Your task to perform on an android device: clear history in the chrome app Image 0: 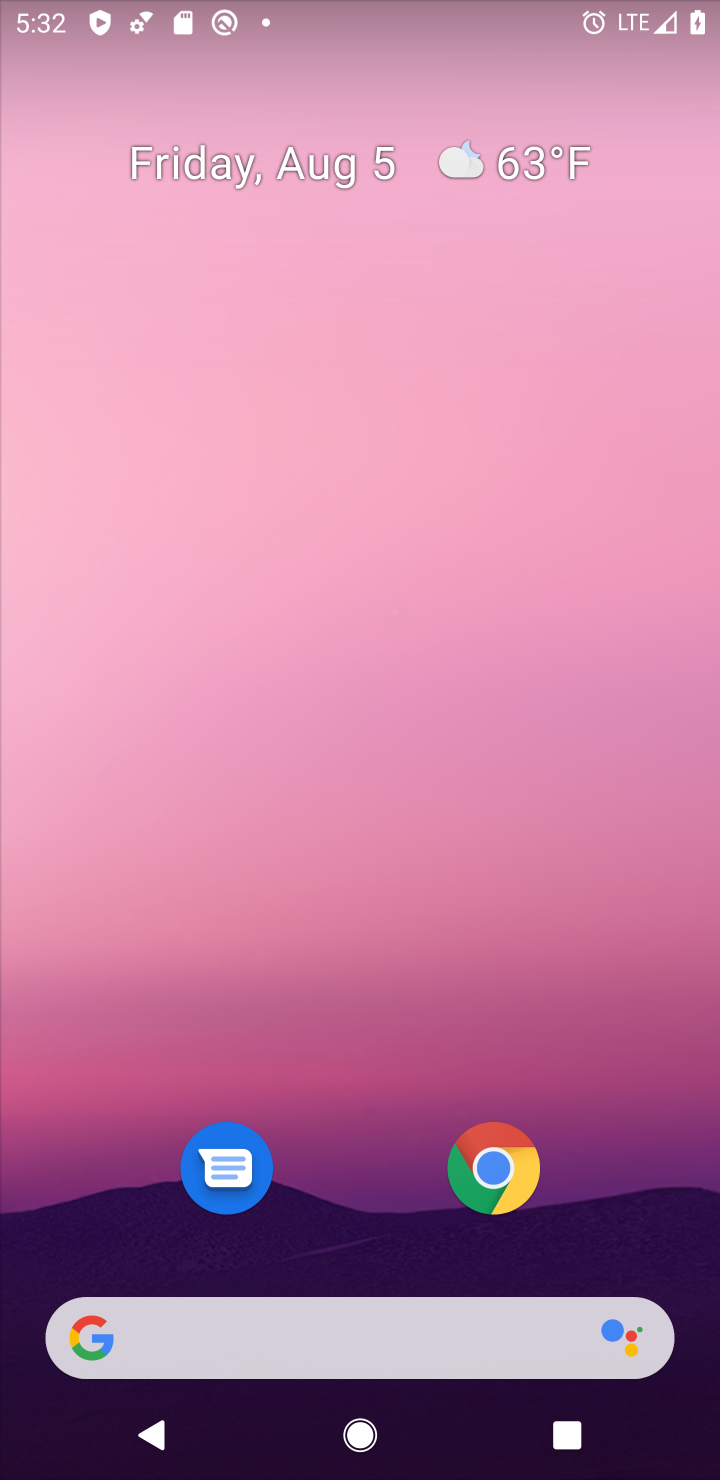
Step 0: drag from (358, 809) to (399, 165)
Your task to perform on an android device: clear history in the chrome app Image 1: 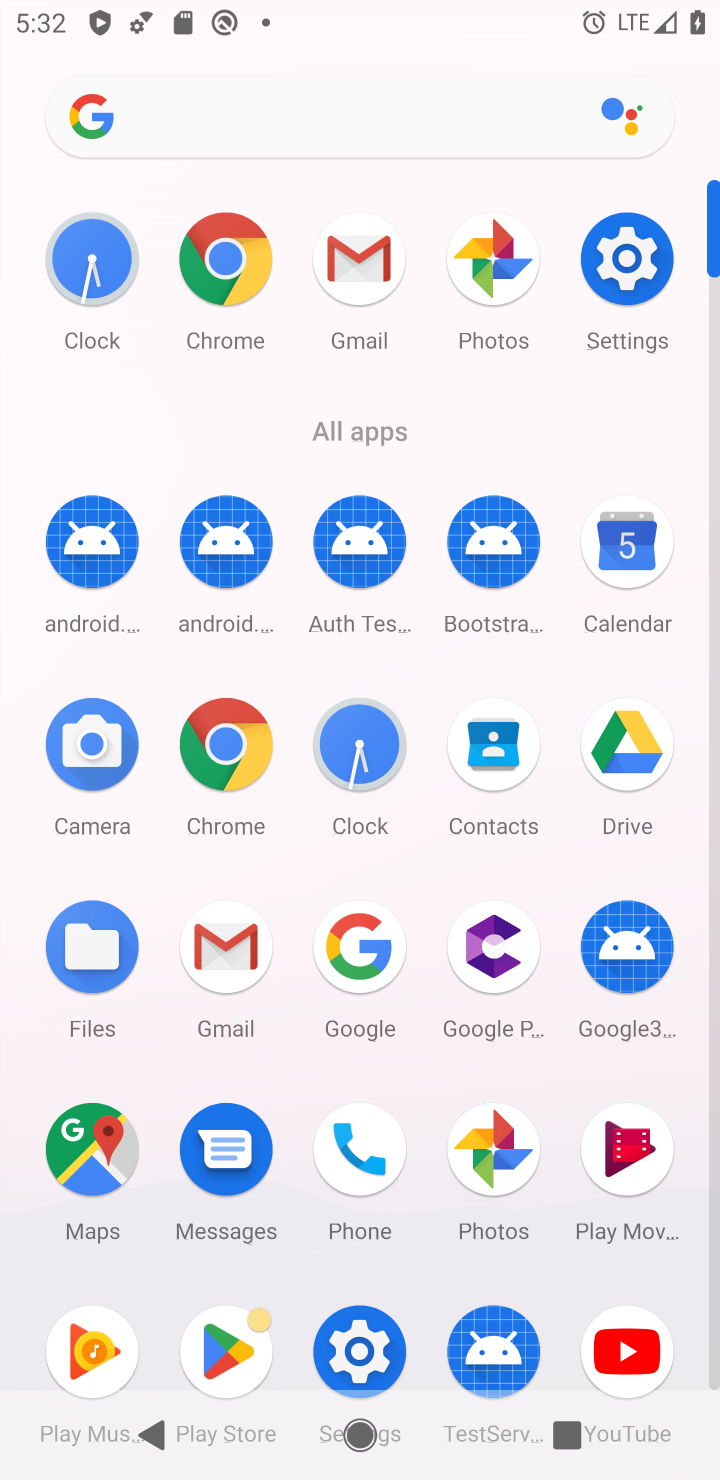
Step 1: click (238, 266)
Your task to perform on an android device: clear history in the chrome app Image 2: 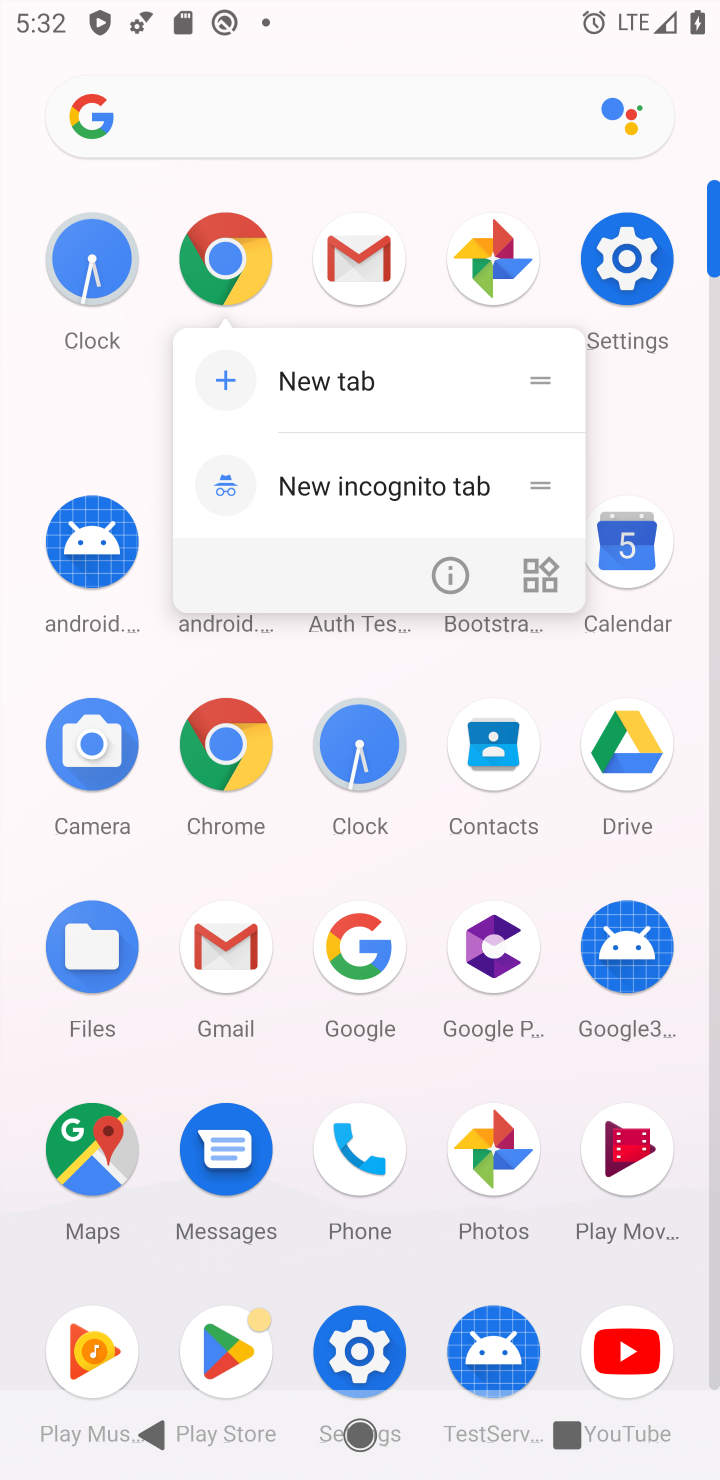
Step 2: click (238, 266)
Your task to perform on an android device: clear history in the chrome app Image 3: 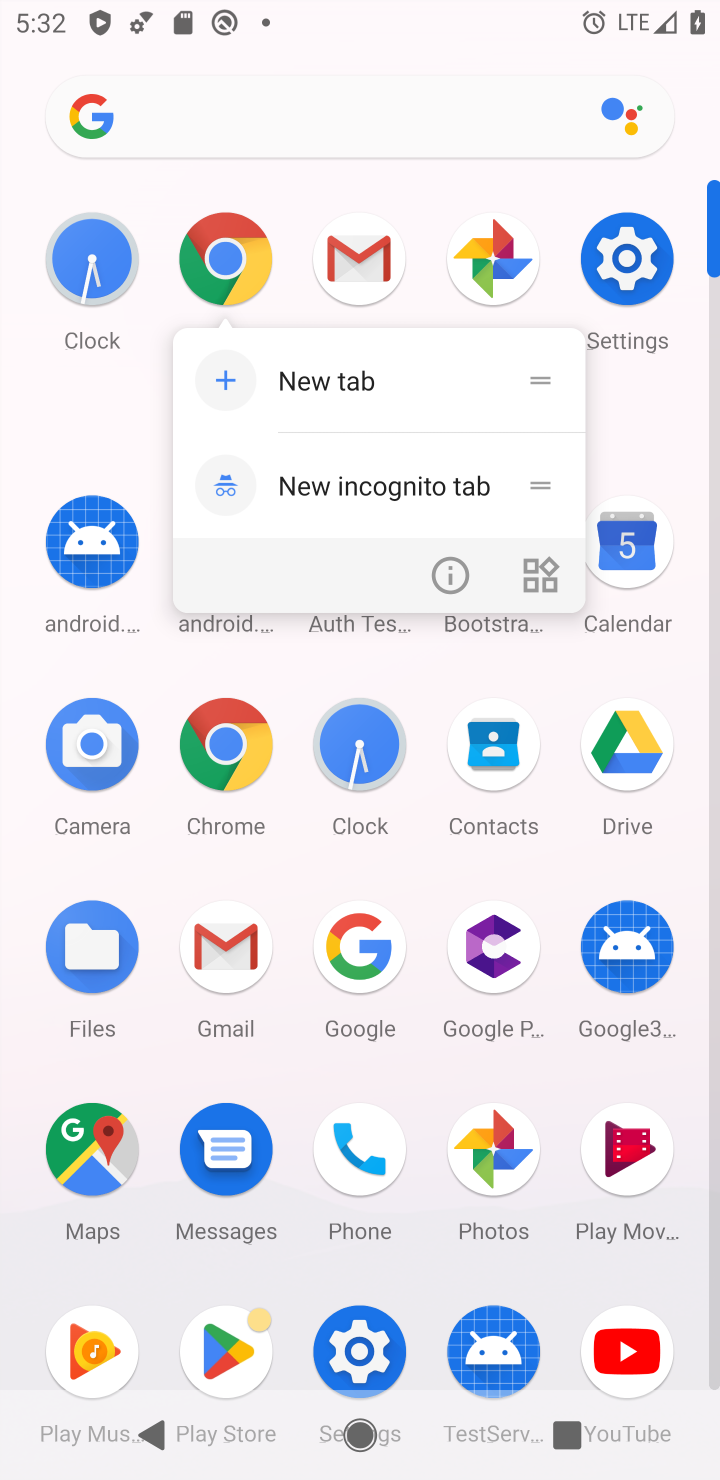
Step 3: click (238, 266)
Your task to perform on an android device: clear history in the chrome app Image 4: 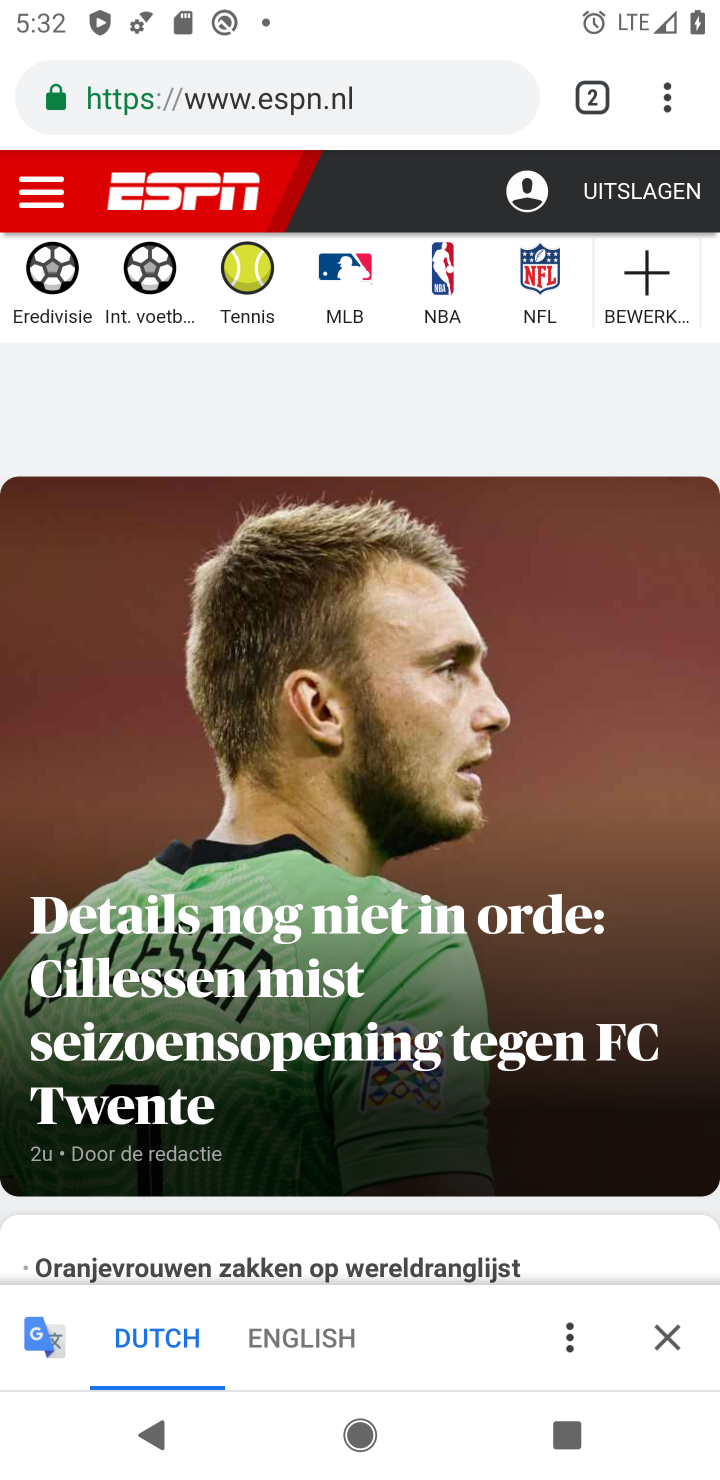
Step 4: drag from (670, 110) to (304, 552)
Your task to perform on an android device: clear history in the chrome app Image 5: 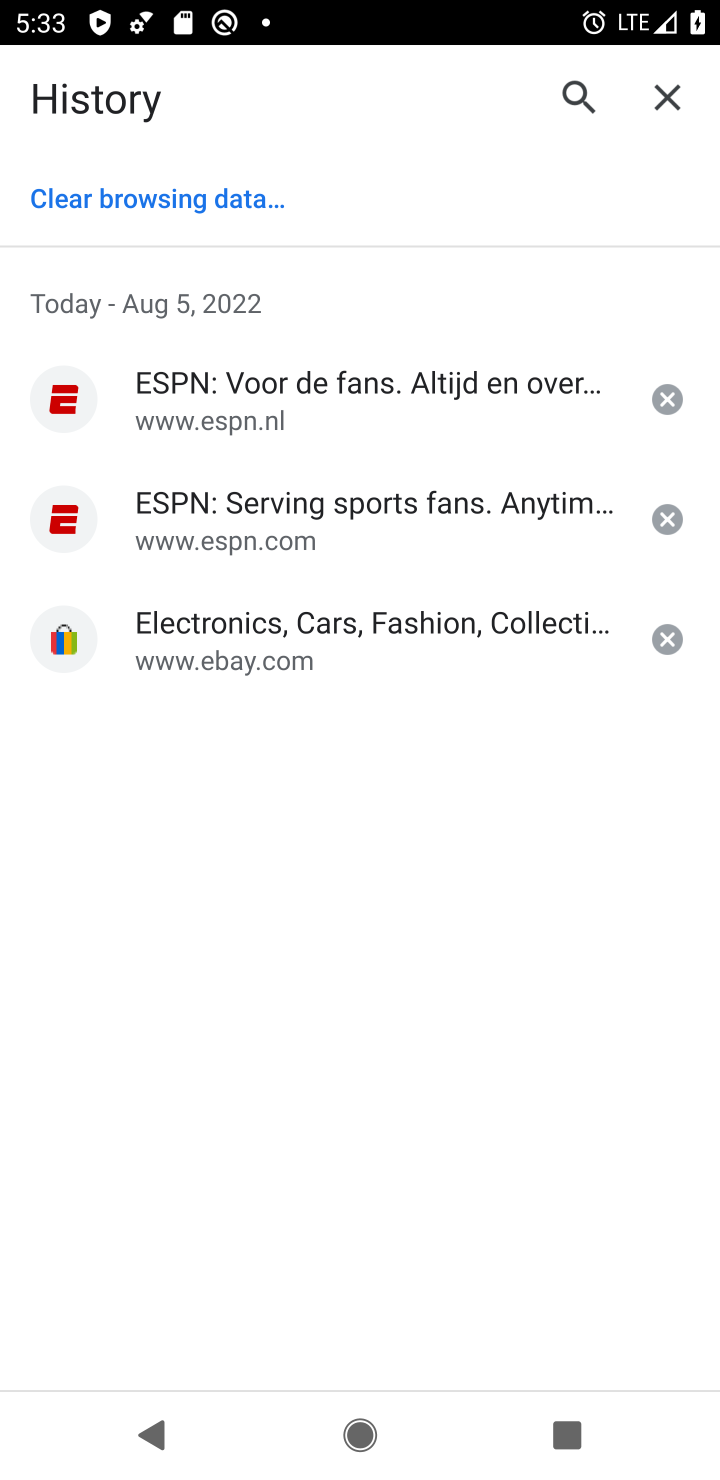
Step 5: click (125, 199)
Your task to perform on an android device: clear history in the chrome app Image 6: 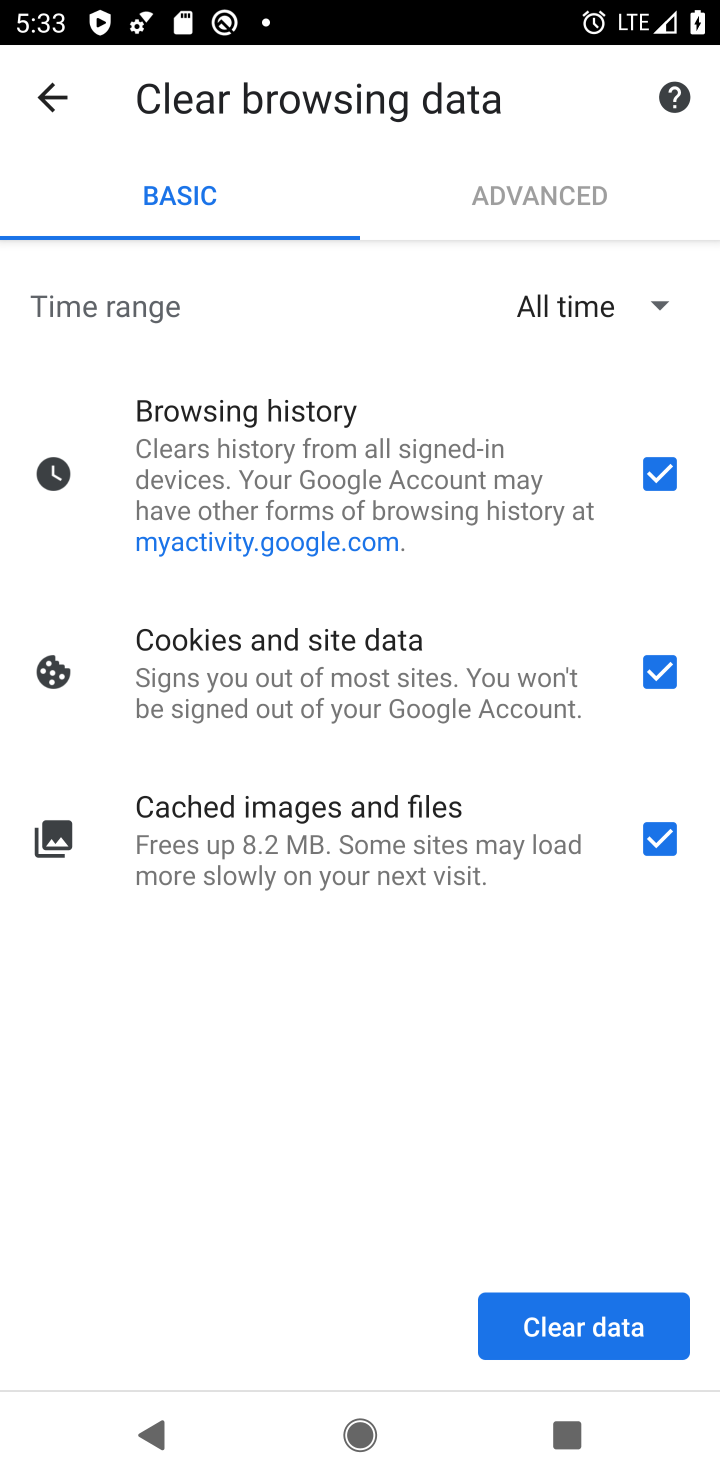
Step 6: click (670, 681)
Your task to perform on an android device: clear history in the chrome app Image 7: 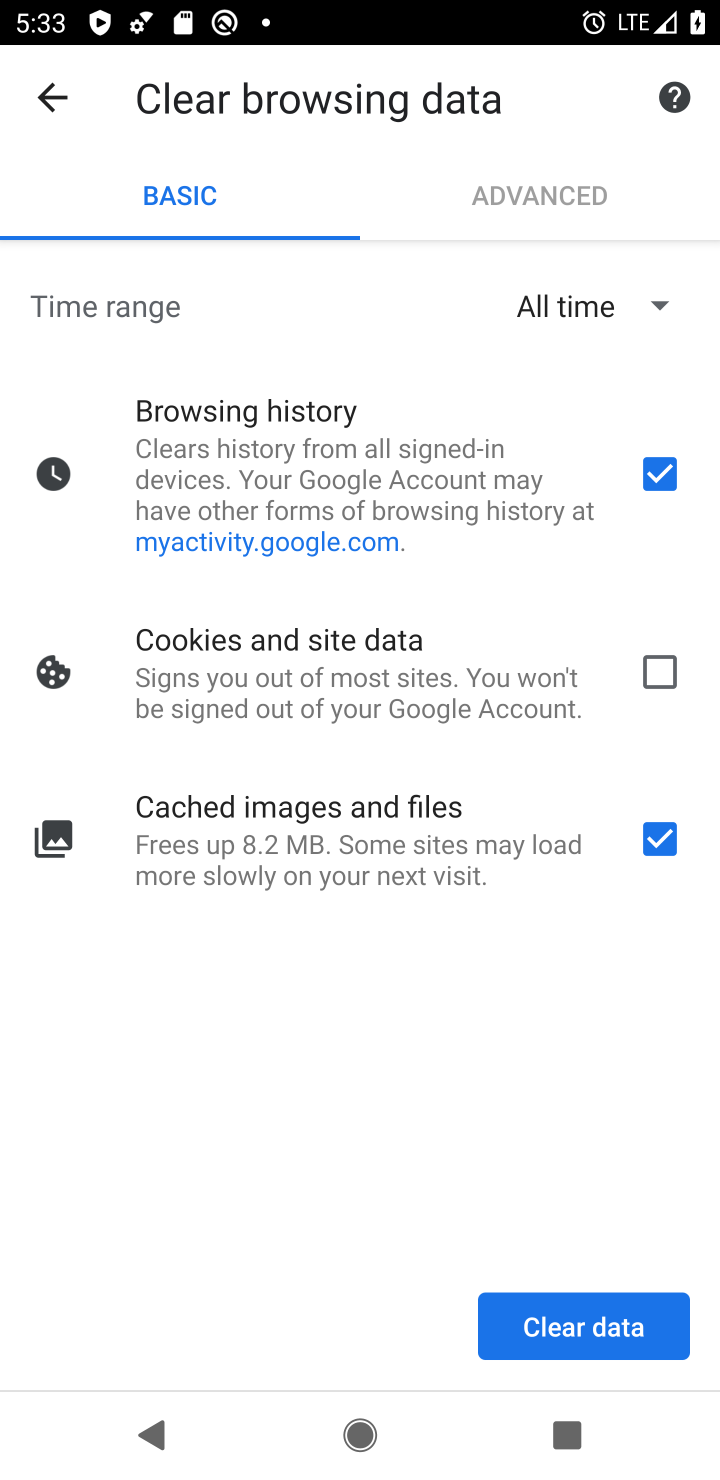
Step 7: click (655, 839)
Your task to perform on an android device: clear history in the chrome app Image 8: 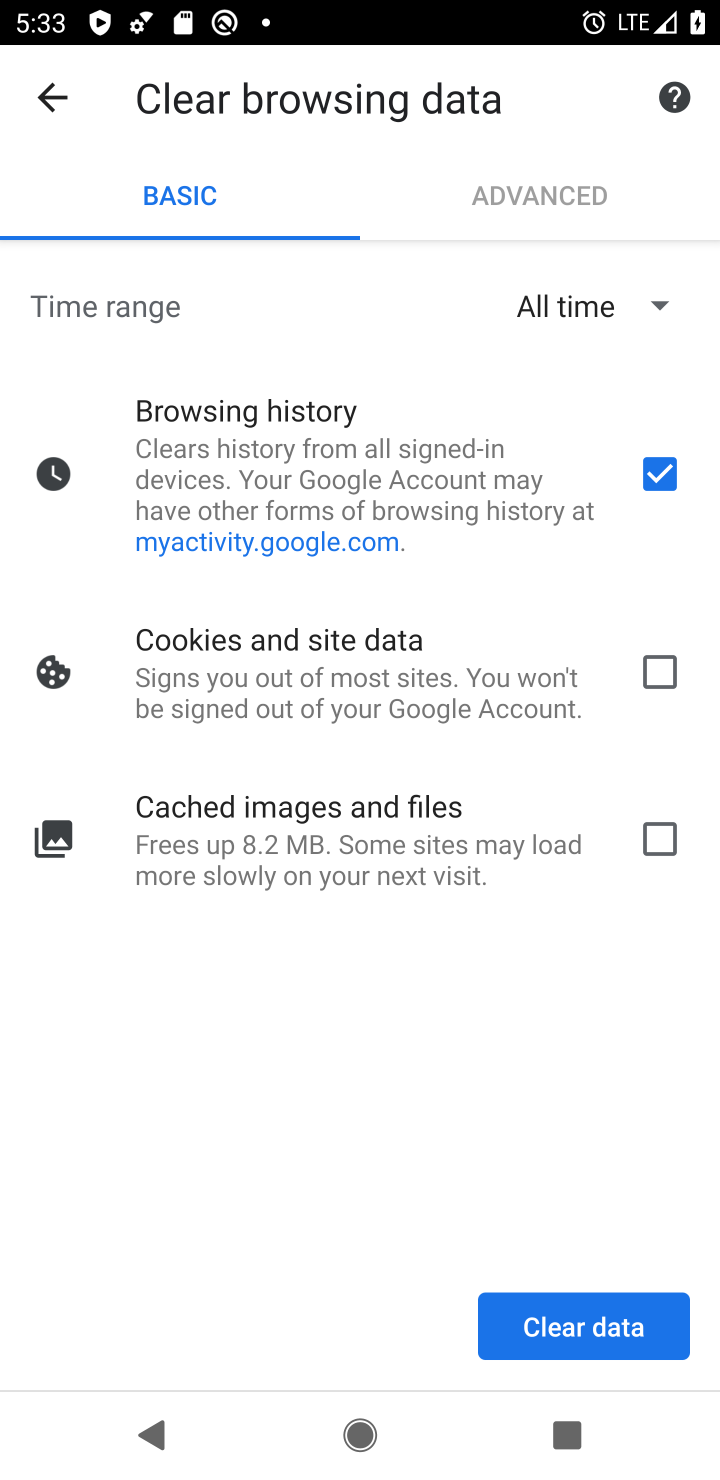
Step 8: click (583, 1324)
Your task to perform on an android device: clear history in the chrome app Image 9: 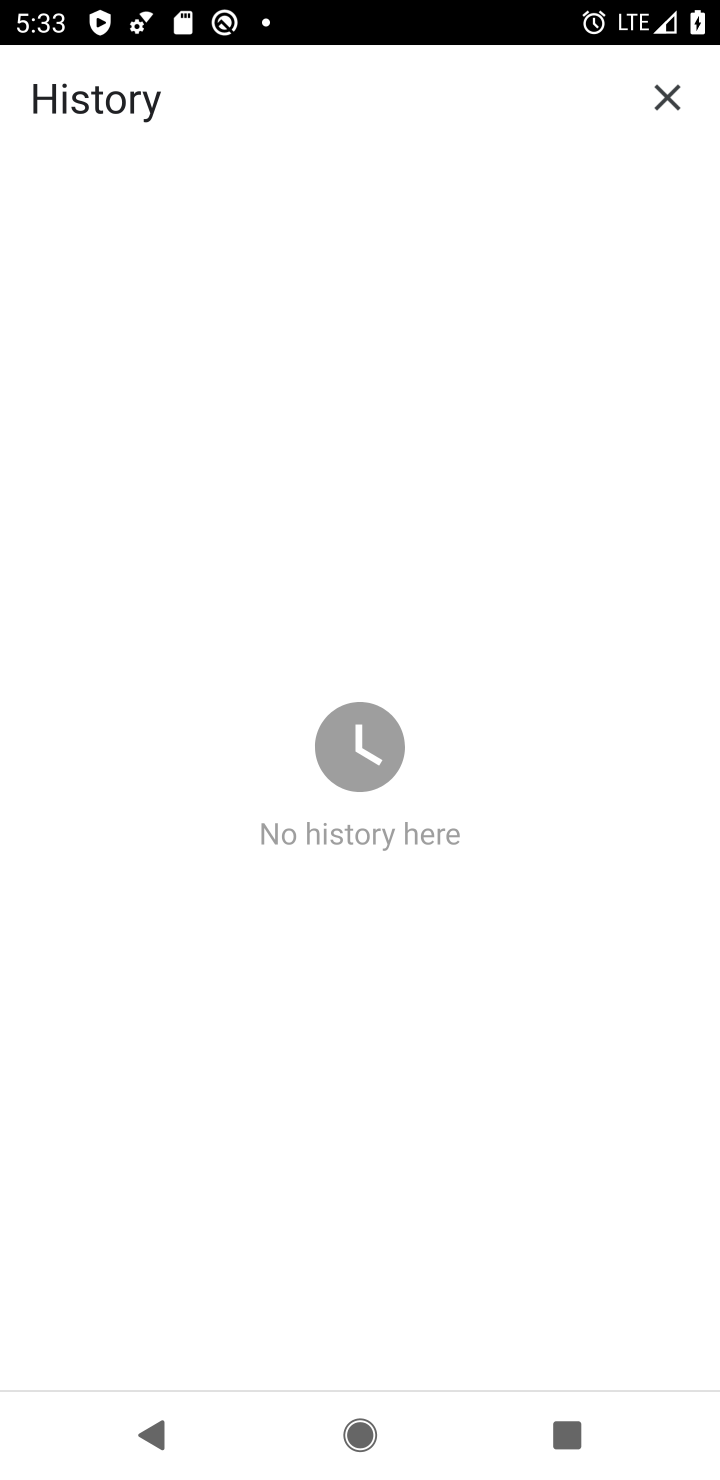
Step 9: task complete